Your task to perform on an android device: Go to notification settings Image 0: 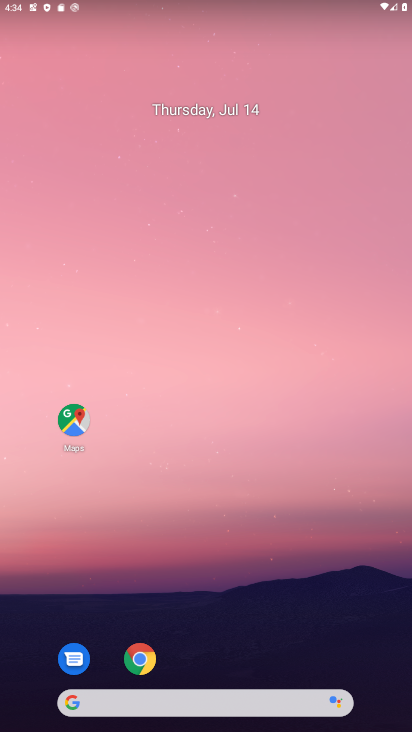
Step 0: drag from (228, 618) to (203, 57)
Your task to perform on an android device: Go to notification settings Image 1: 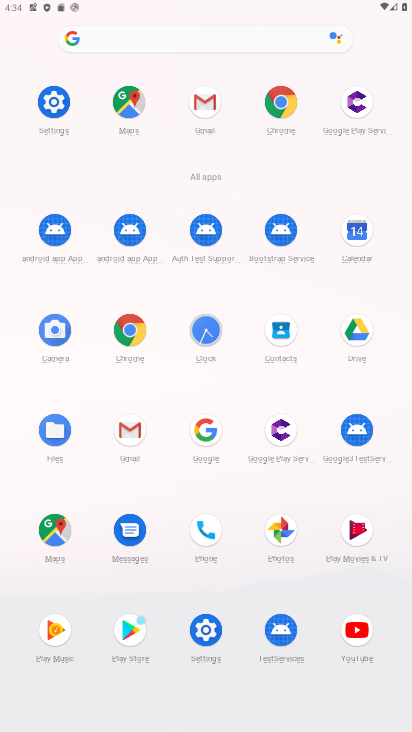
Step 1: click (208, 622)
Your task to perform on an android device: Go to notification settings Image 2: 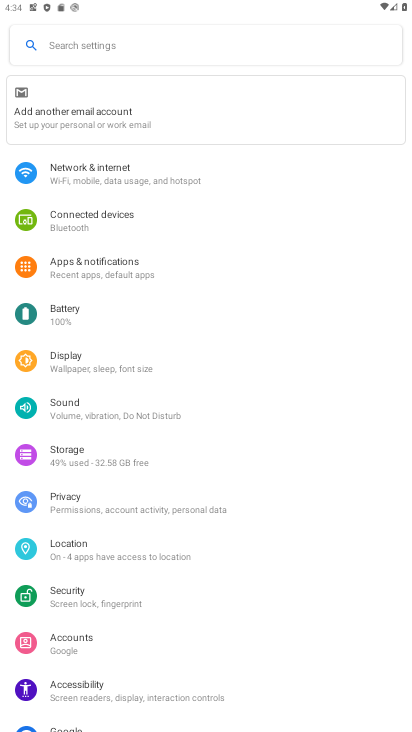
Step 2: click (128, 268)
Your task to perform on an android device: Go to notification settings Image 3: 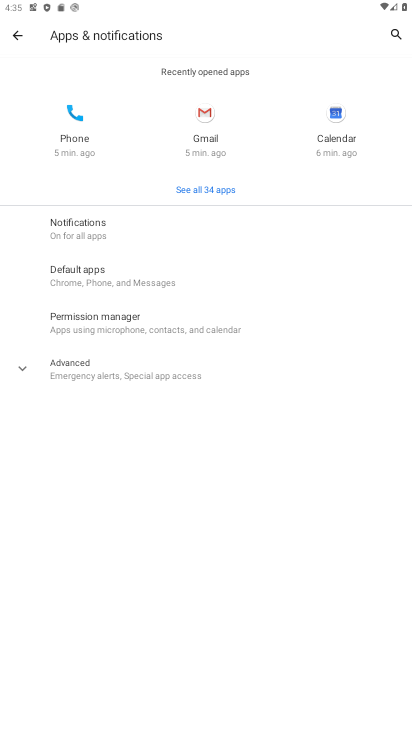
Step 3: click (127, 222)
Your task to perform on an android device: Go to notification settings Image 4: 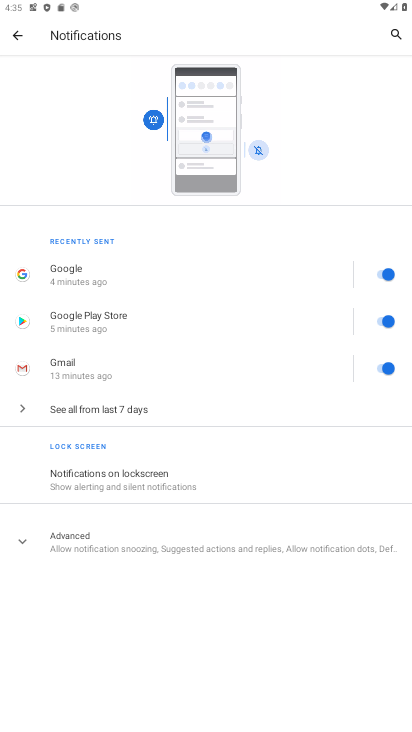
Step 4: click (35, 542)
Your task to perform on an android device: Go to notification settings Image 5: 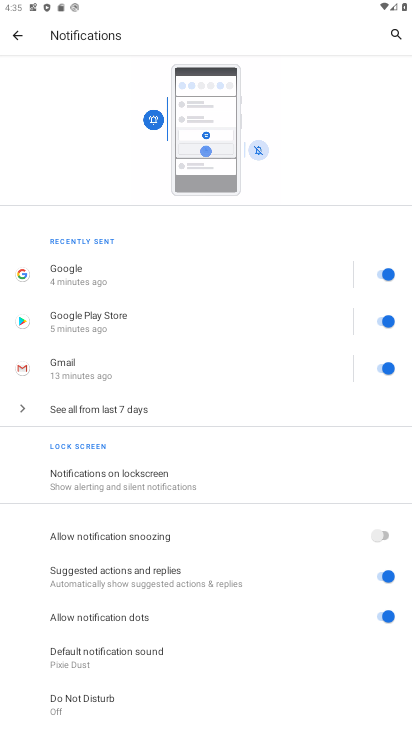
Step 5: task complete